Your task to perform on an android device: change timer sound Image 0: 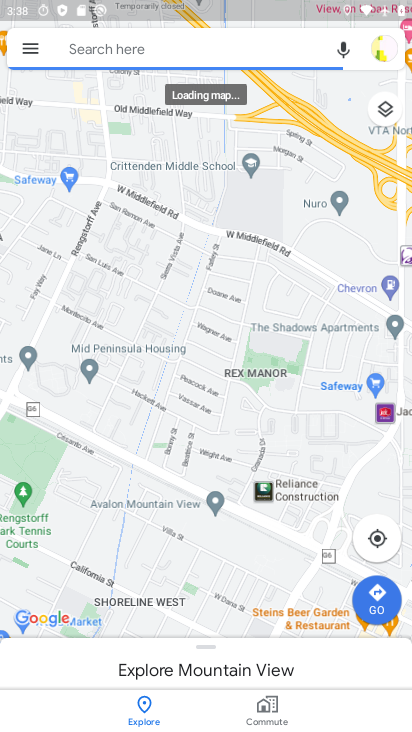
Step 0: press back button
Your task to perform on an android device: change timer sound Image 1: 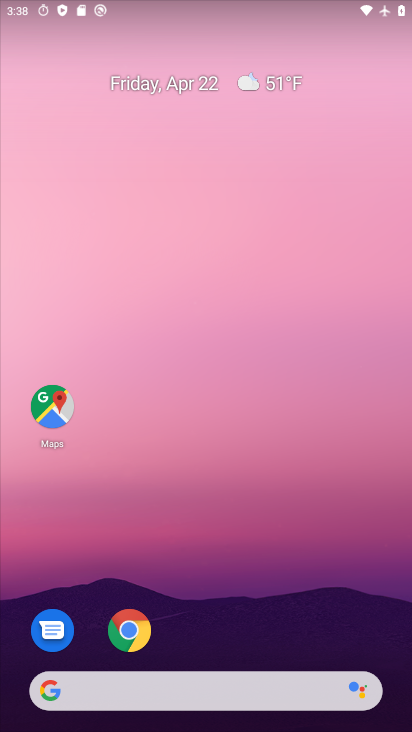
Step 1: drag from (253, 572) to (213, 24)
Your task to perform on an android device: change timer sound Image 2: 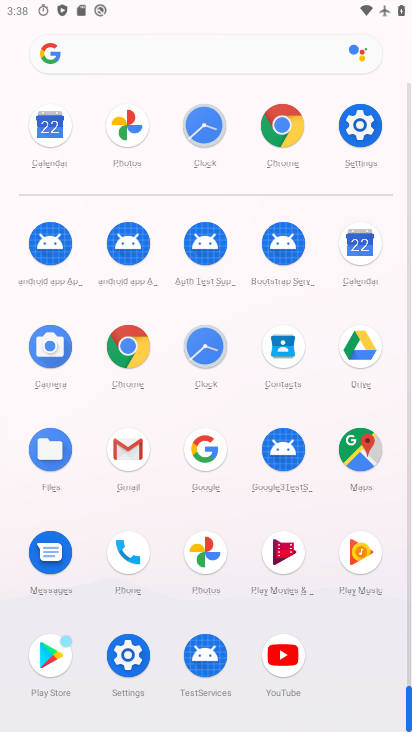
Step 2: drag from (8, 461) to (0, 301)
Your task to perform on an android device: change timer sound Image 3: 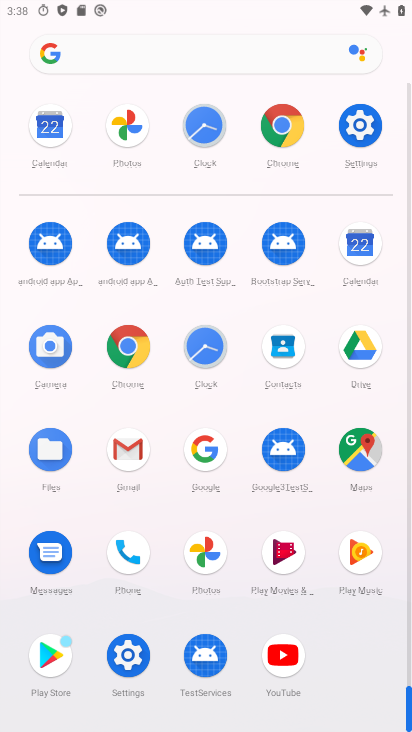
Step 3: click (204, 122)
Your task to perform on an android device: change timer sound Image 4: 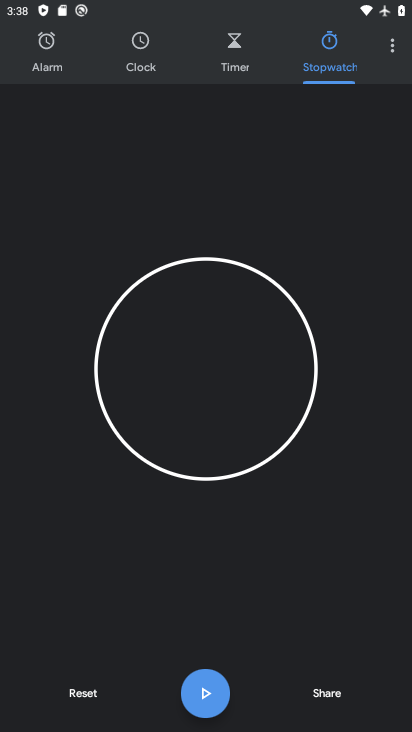
Step 4: click (391, 42)
Your task to perform on an android device: change timer sound Image 5: 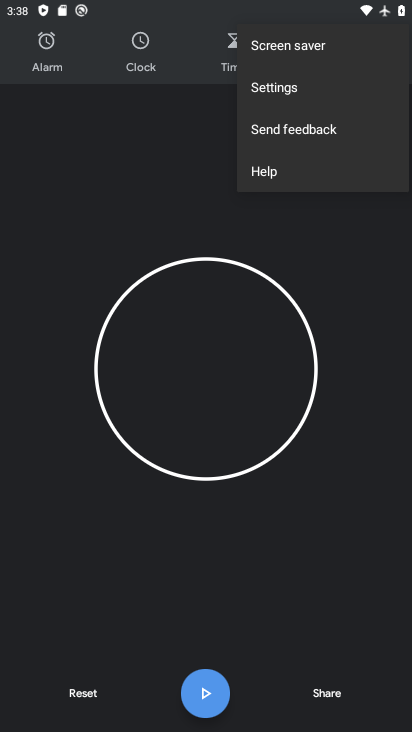
Step 5: click (307, 82)
Your task to perform on an android device: change timer sound Image 6: 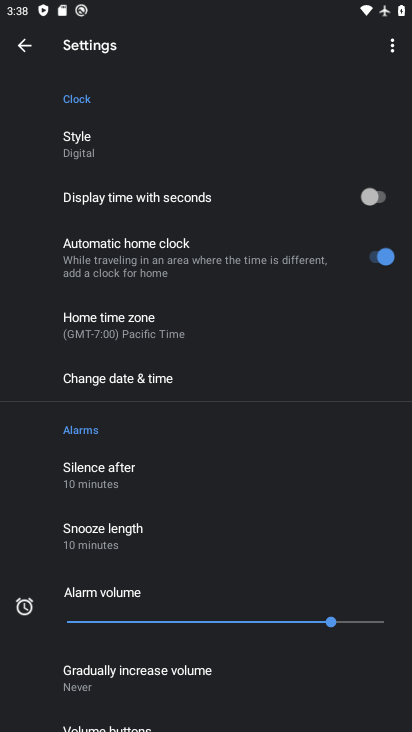
Step 6: drag from (219, 548) to (224, 133)
Your task to perform on an android device: change timer sound Image 7: 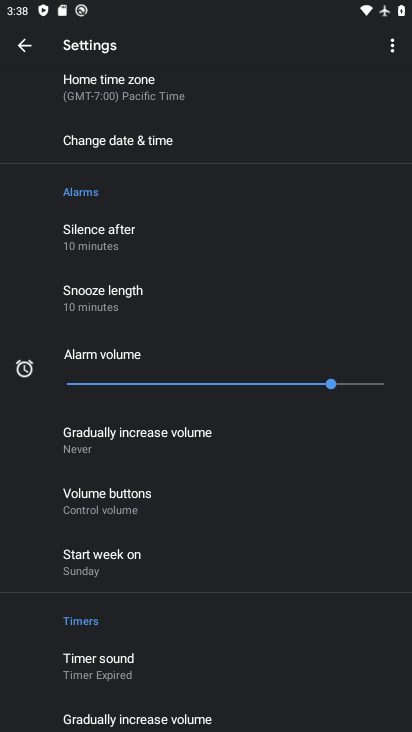
Step 7: drag from (243, 646) to (281, 343)
Your task to perform on an android device: change timer sound Image 8: 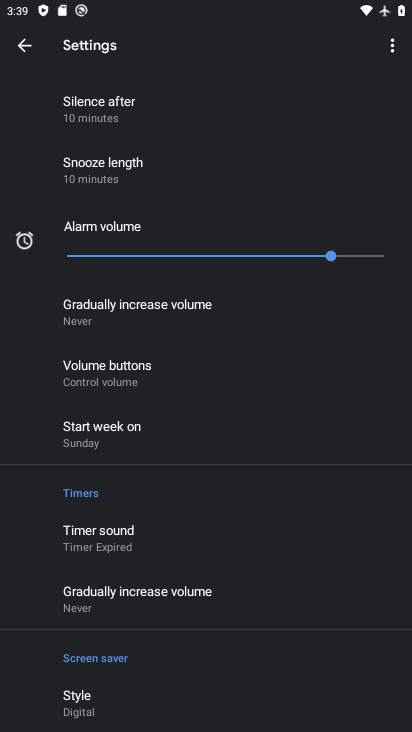
Step 8: click (133, 539)
Your task to perform on an android device: change timer sound Image 9: 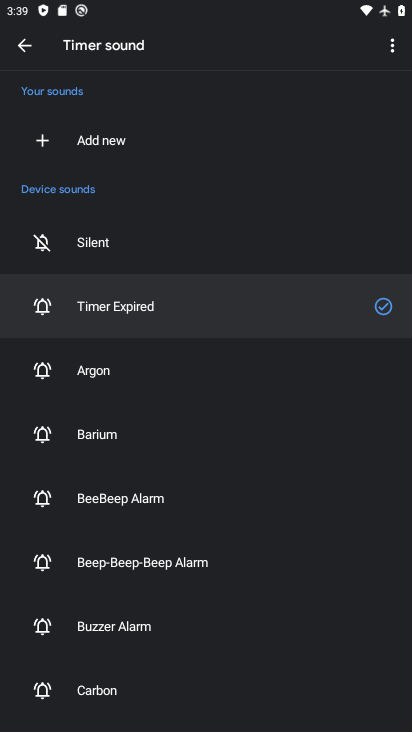
Step 9: click (137, 692)
Your task to perform on an android device: change timer sound Image 10: 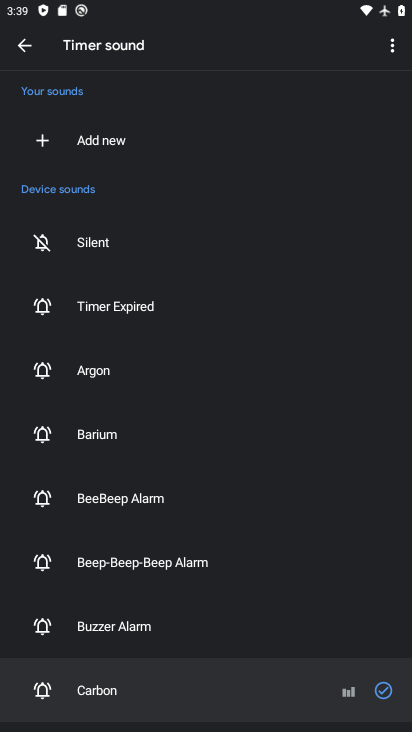
Step 10: task complete